Your task to perform on an android device: Open CNN.com Image 0: 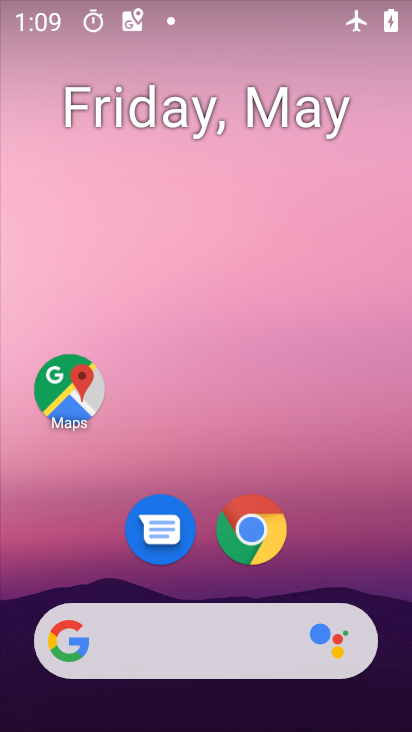
Step 0: click (260, 540)
Your task to perform on an android device: Open CNN.com Image 1: 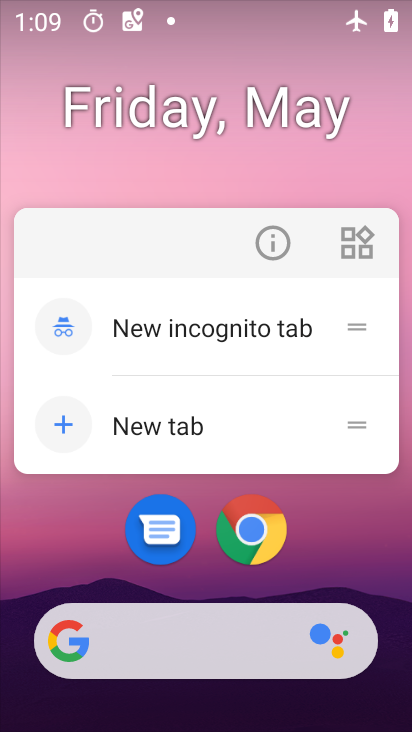
Step 1: click (260, 540)
Your task to perform on an android device: Open CNN.com Image 2: 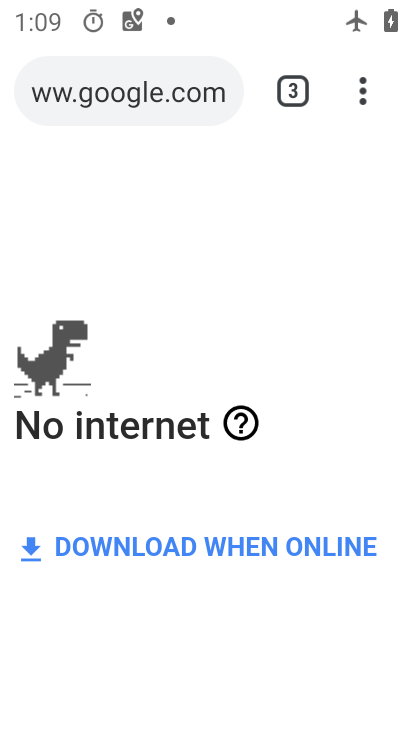
Step 2: click (158, 104)
Your task to perform on an android device: Open CNN.com Image 3: 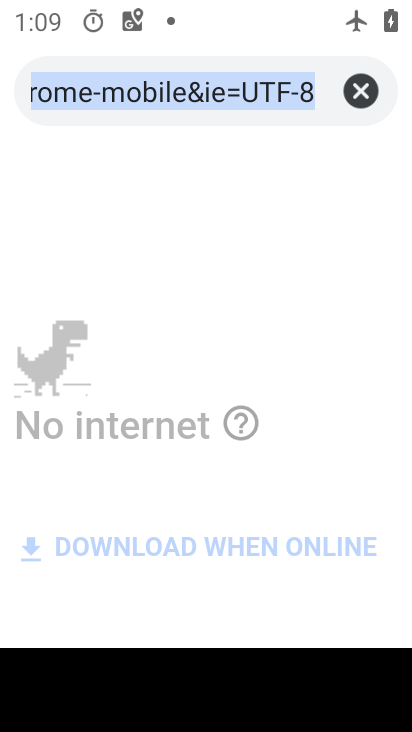
Step 3: type "cnn"
Your task to perform on an android device: Open CNN.com Image 4: 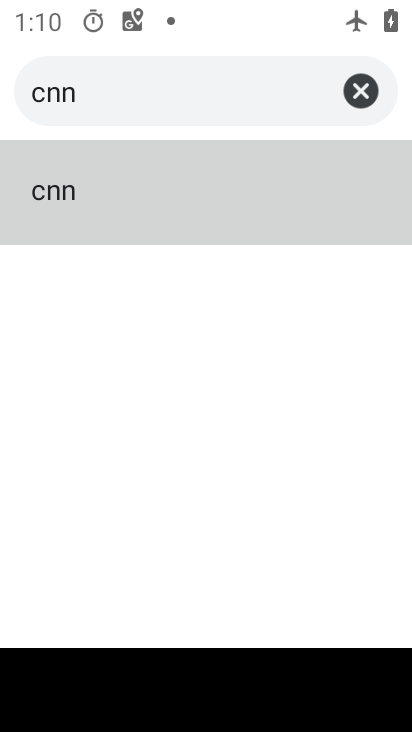
Step 4: task complete